Your task to perform on an android device: Search for vegetarian restaurants on Maps Image 0: 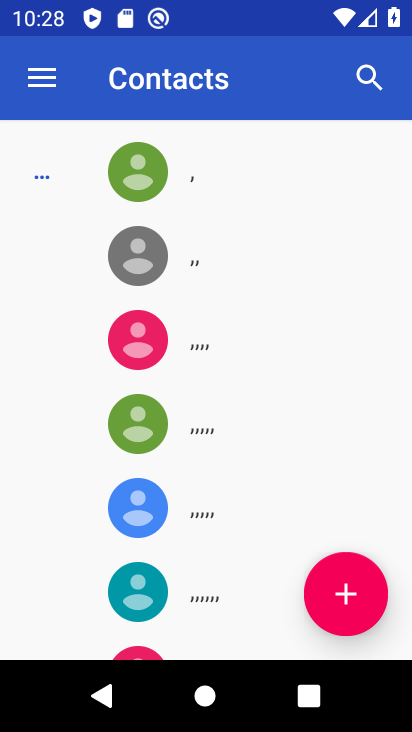
Step 0: press back button
Your task to perform on an android device: Search for vegetarian restaurants on Maps Image 1: 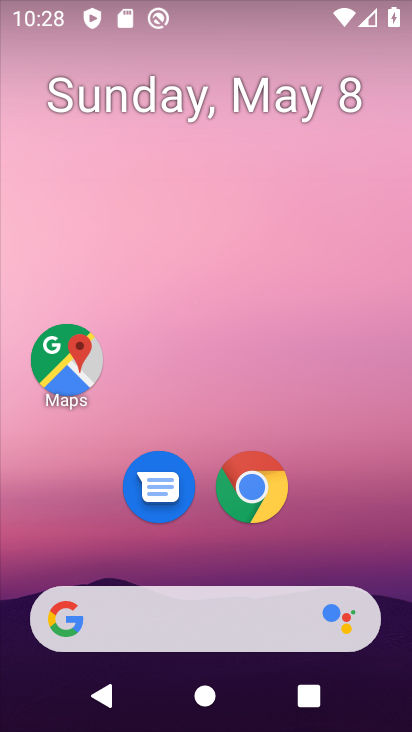
Step 1: click (70, 358)
Your task to perform on an android device: Search for vegetarian restaurants on Maps Image 2: 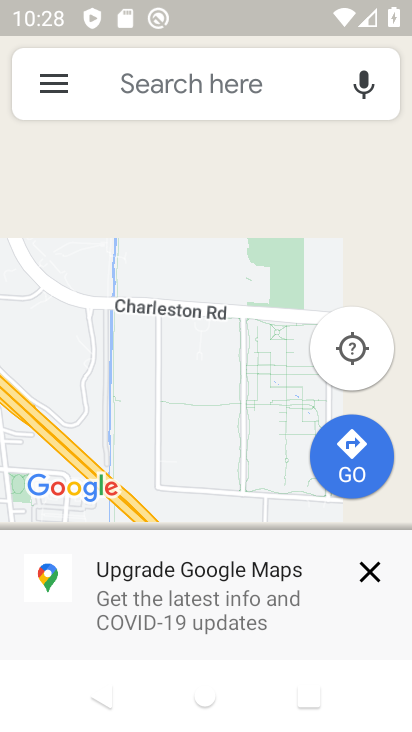
Step 2: click (169, 81)
Your task to perform on an android device: Search for vegetarian restaurants on Maps Image 3: 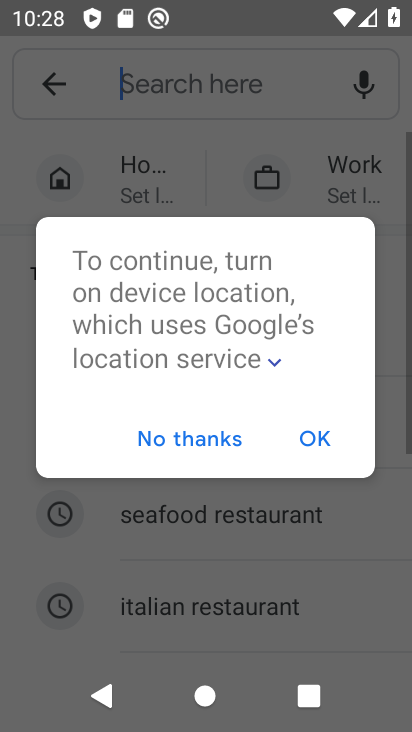
Step 3: click (326, 441)
Your task to perform on an android device: Search for vegetarian restaurants on Maps Image 4: 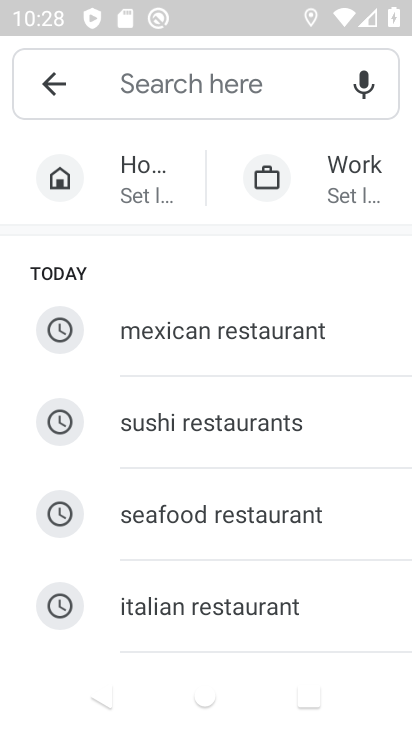
Step 4: drag from (244, 572) to (294, 192)
Your task to perform on an android device: Search for vegetarian restaurants on Maps Image 5: 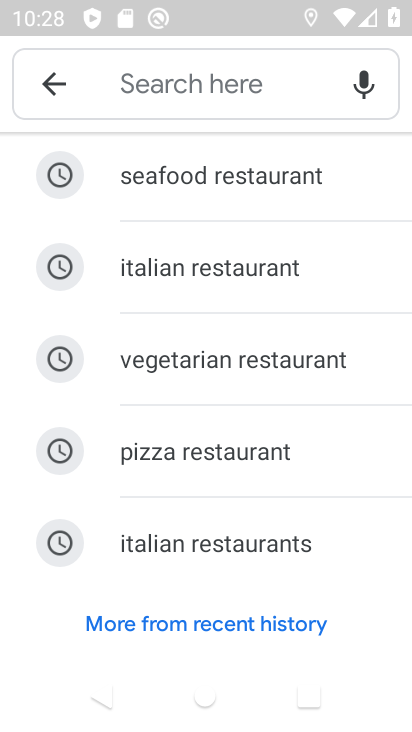
Step 5: click (223, 361)
Your task to perform on an android device: Search for vegetarian restaurants on Maps Image 6: 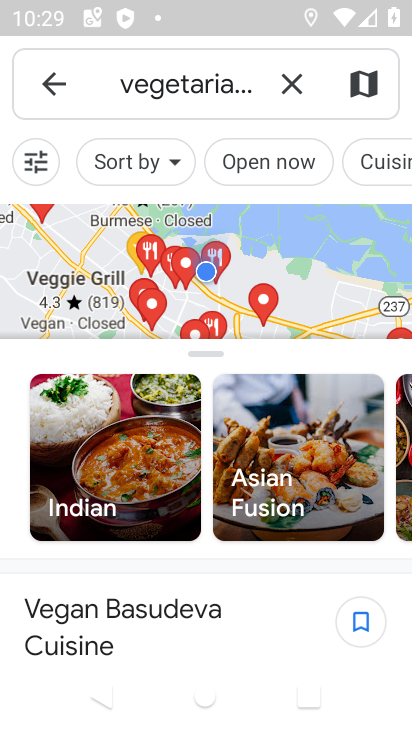
Step 6: task complete